Your task to perform on an android device: find photos in the google photos app Image 0: 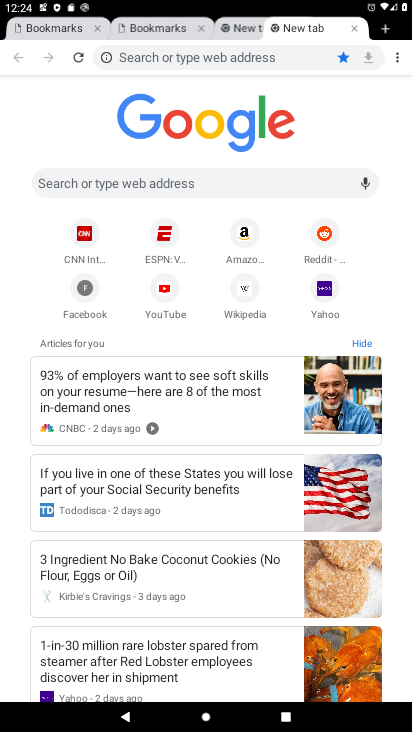
Step 0: press home button
Your task to perform on an android device: find photos in the google photos app Image 1: 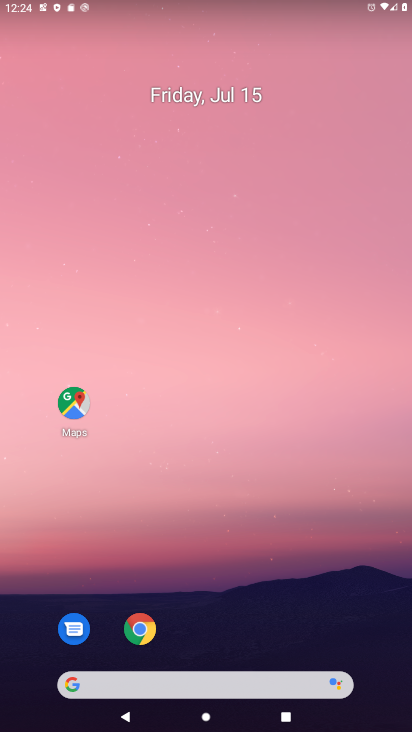
Step 1: drag from (272, 650) to (242, 174)
Your task to perform on an android device: find photos in the google photos app Image 2: 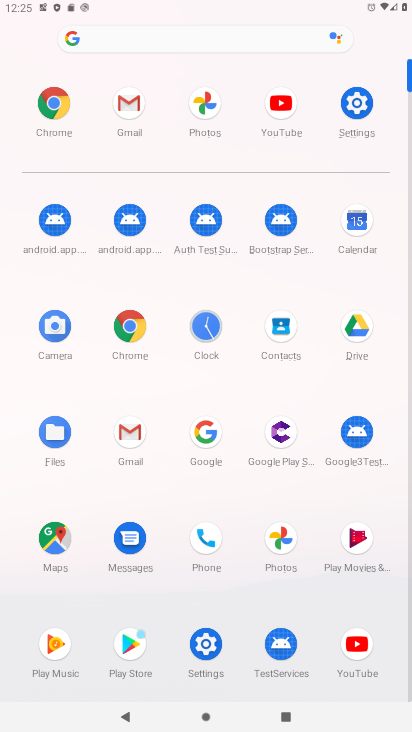
Step 2: click (204, 110)
Your task to perform on an android device: find photos in the google photos app Image 3: 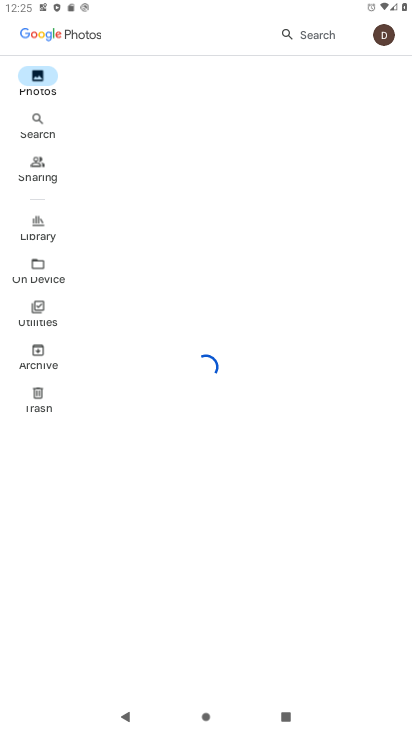
Step 3: click (49, 79)
Your task to perform on an android device: find photos in the google photos app Image 4: 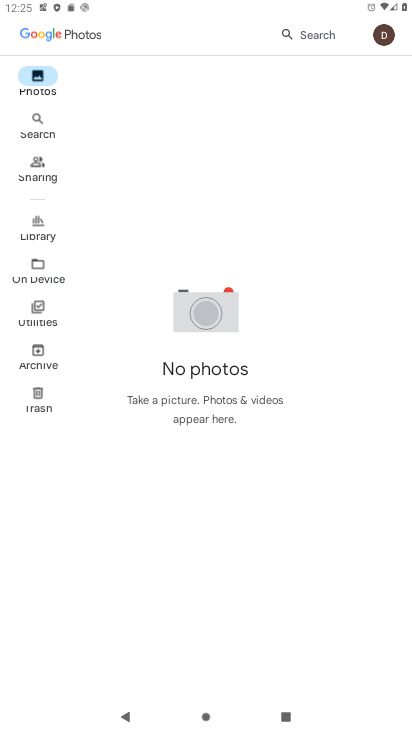
Step 4: task complete